Your task to perform on an android device: change the clock display to show seconds Image 0: 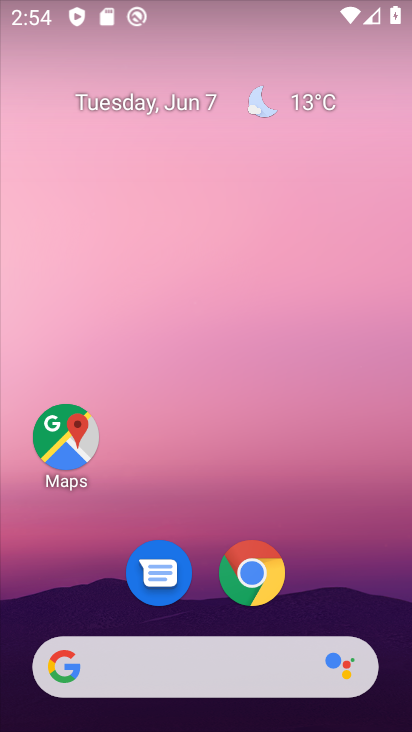
Step 0: drag from (26, 598) to (251, 148)
Your task to perform on an android device: change the clock display to show seconds Image 1: 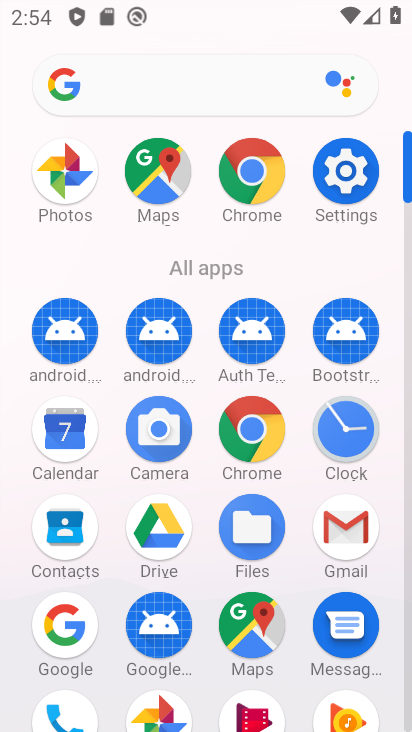
Step 1: click (334, 417)
Your task to perform on an android device: change the clock display to show seconds Image 2: 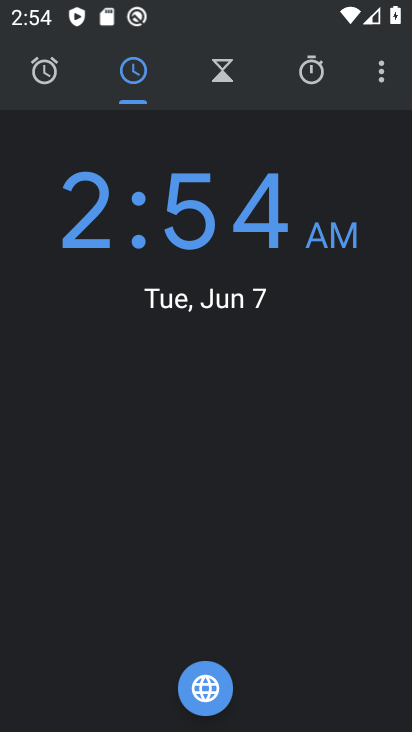
Step 2: click (376, 76)
Your task to perform on an android device: change the clock display to show seconds Image 3: 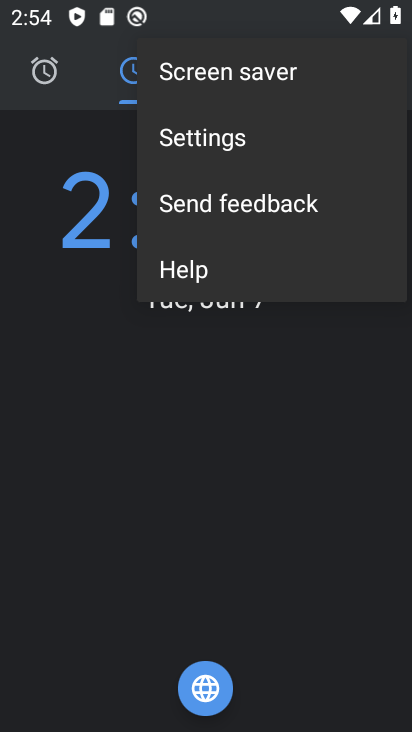
Step 3: click (299, 134)
Your task to perform on an android device: change the clock display to show seconds Image 4: 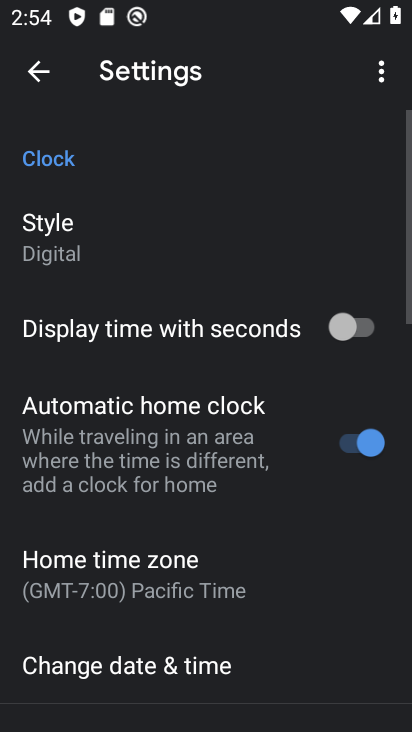
Step 4: click (346, 322)
Your task to perform on an android device: change the clock display to show seconds Image 5: 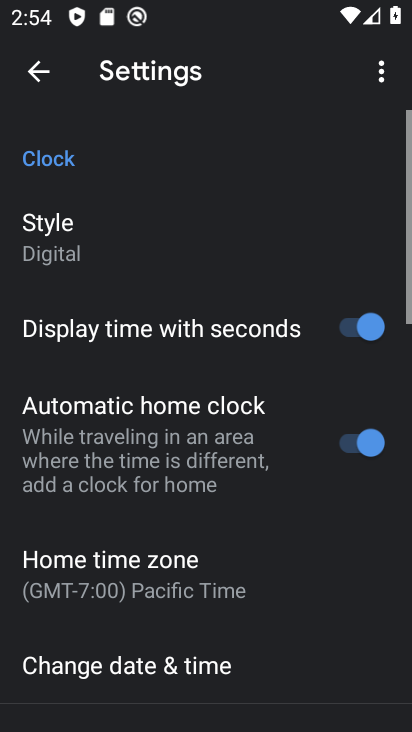
Step 5: task complete